Your task to perform on an android device: Go to Google maps Image 0: 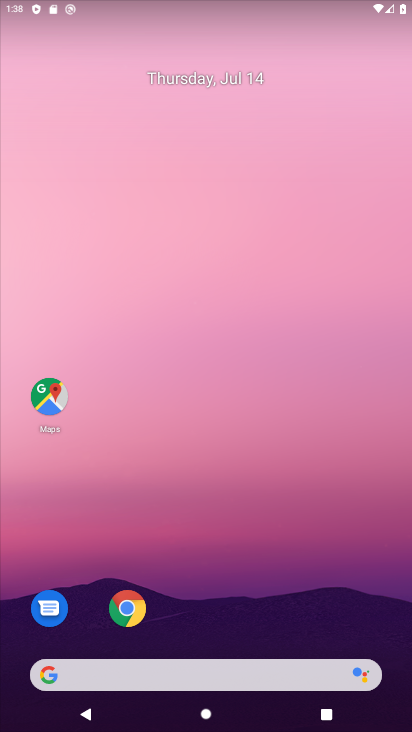
Step 0: click (50, 395)
Your task to perform on an android device: Go to Google maps Image 1: 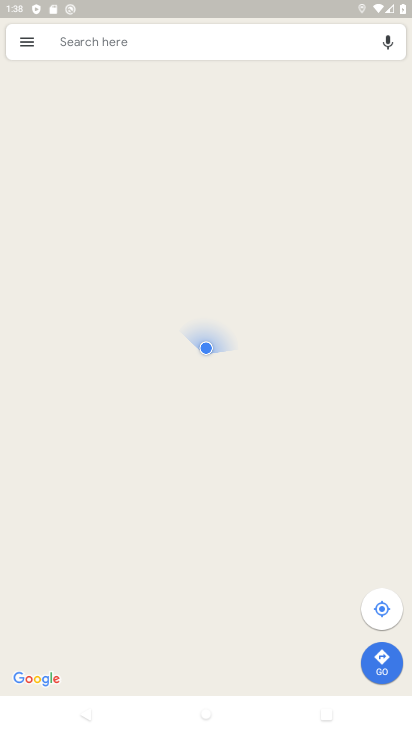
Step 1: task complete